Your task to perform on an android device: check data usage Image 0: 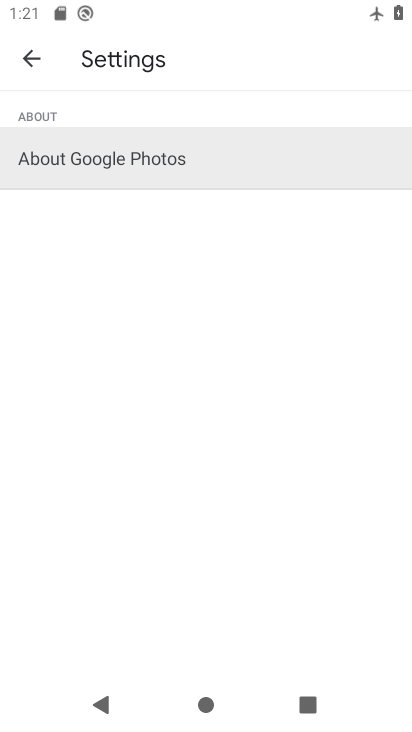
Step 0: press home button
Your task to perform on an android device: check data usage Image 1: 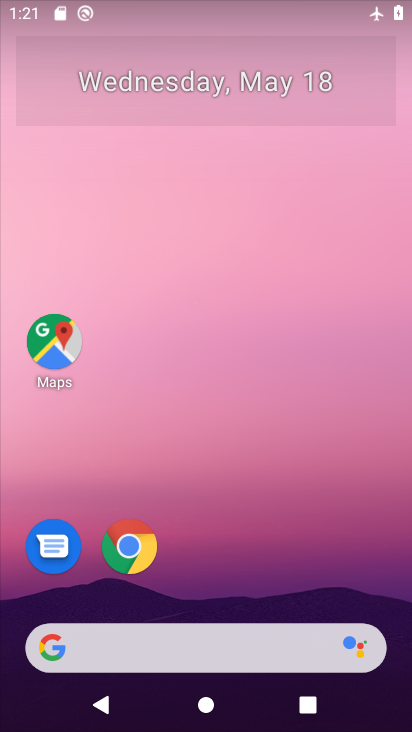
Step 1: drag from (185, 583) to (411, 54)
Your task to perform on an android device: check data usage Image 2: 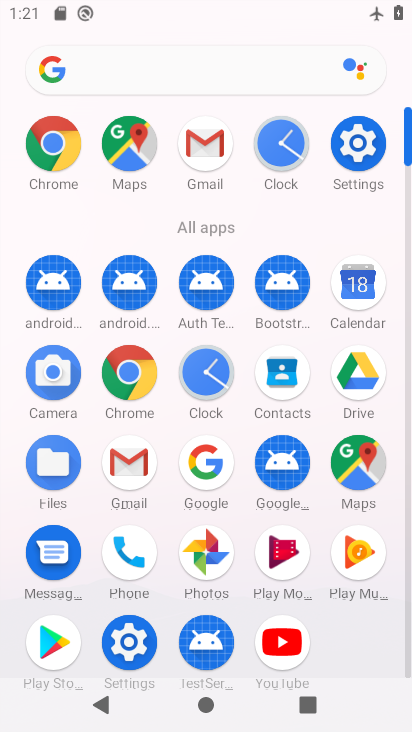
Step 2: click (129, 640)
Your task to perform on an android device: check data usage Image 3: 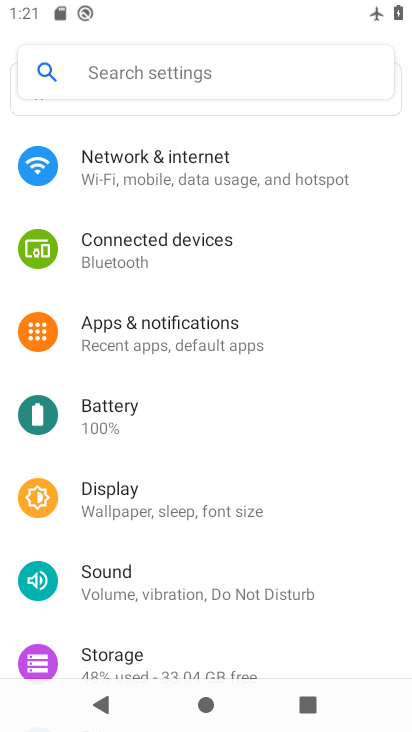
Step 3: click (151, 163)
Your task to perform on an android device: check data usage Image 4: 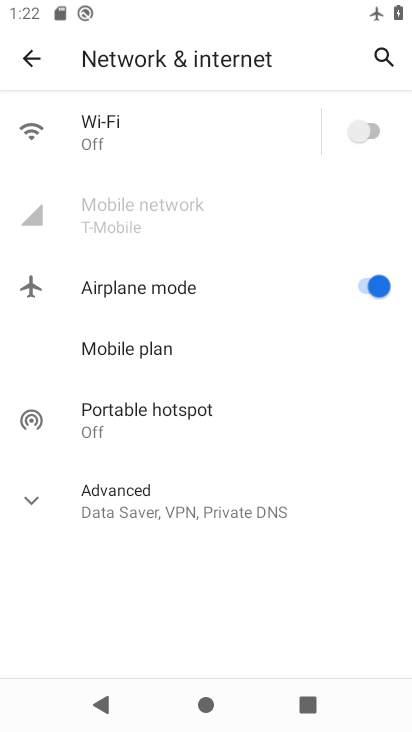
Step 4: task complete